Your task to perform on an android device: What is the news today? Image 0: 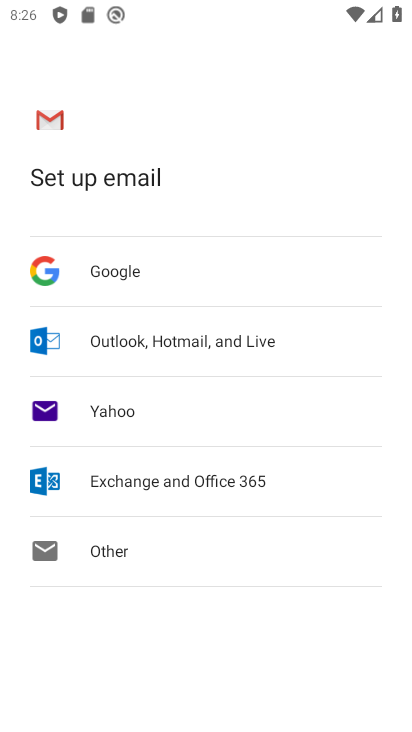
Step 0: press home button
Your task to perform on an android device: What is the news today? Image 1: 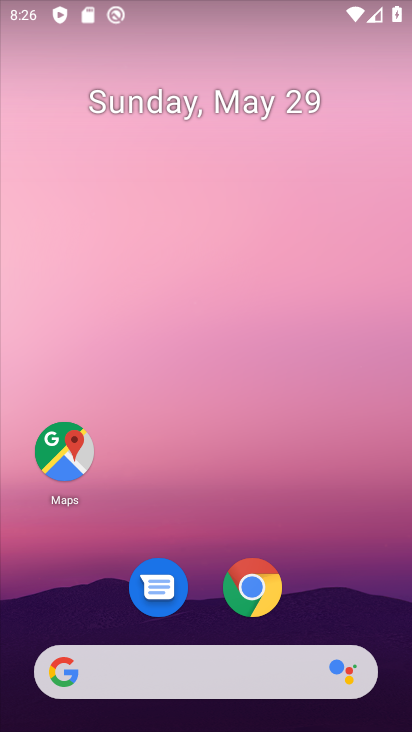
Step 1: click (187, 656)
Your task to perform on an android device: What is the news today? Image 2: 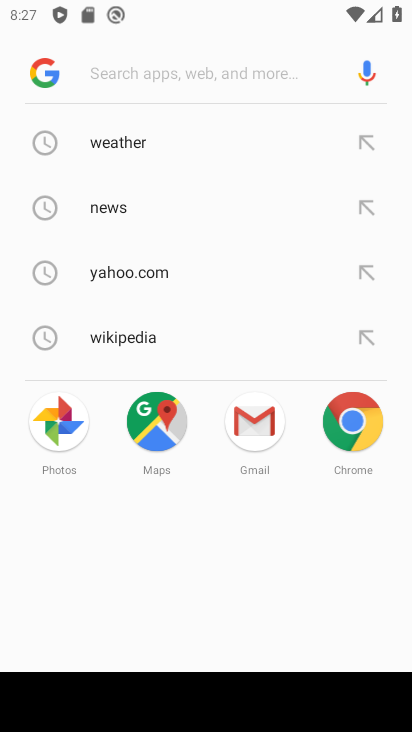
Step 2: click (141, 195)
Your task to perform on an android device: What is the news today? Image 3: 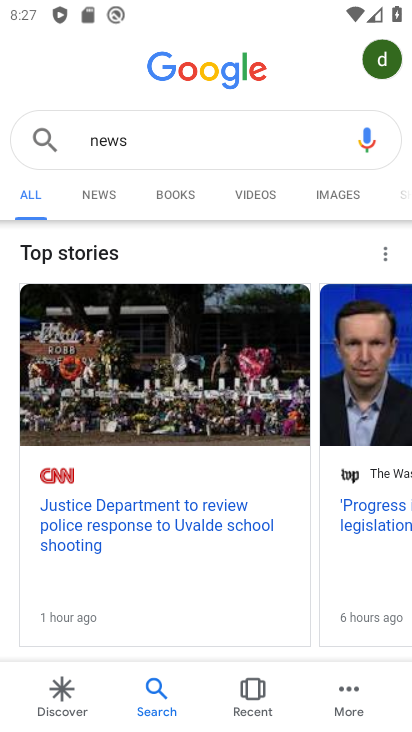
Step 3: task complete